Your task to perform on an android device: Show me productivity apps on the Play Store Image 0: 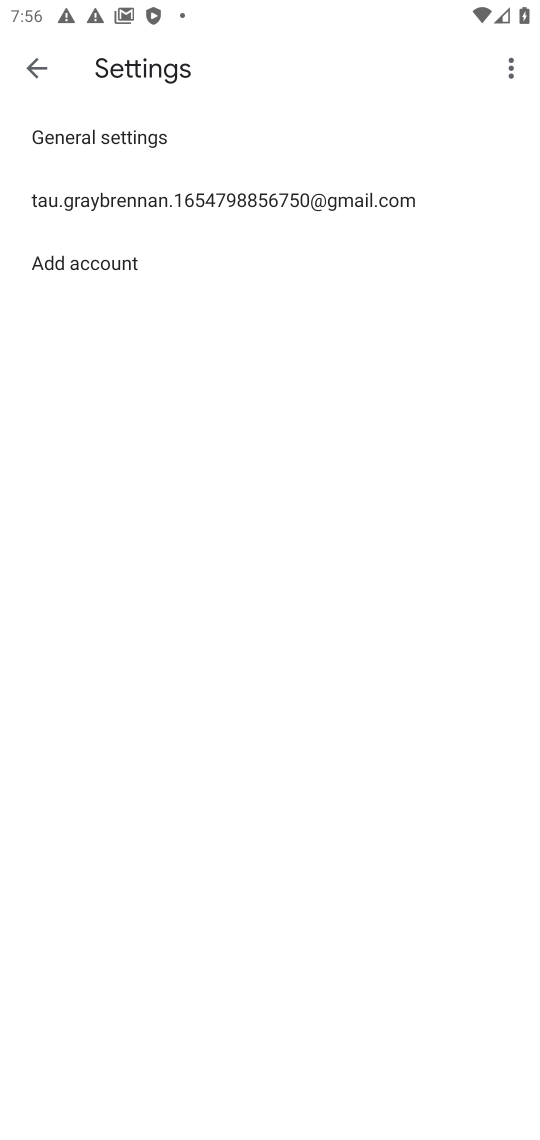
Step 0: press home button
Your task to perform on an android device: Show me productivity apps on the Play Store Image 1: 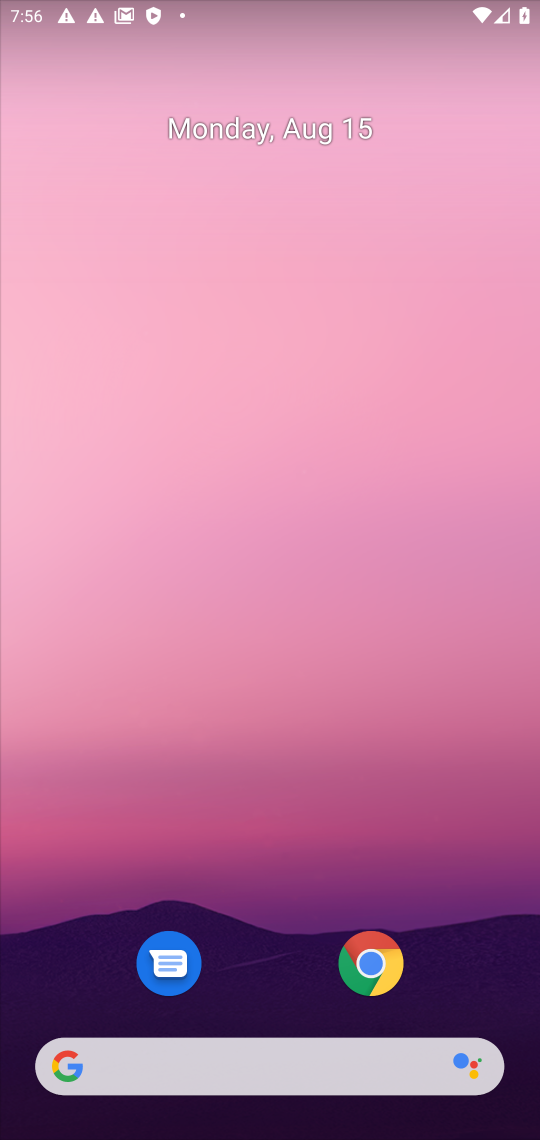
Step 1: click (204, 65)
Your task to perform on an android device: Show me productivity apps on the Play Store Image 2: 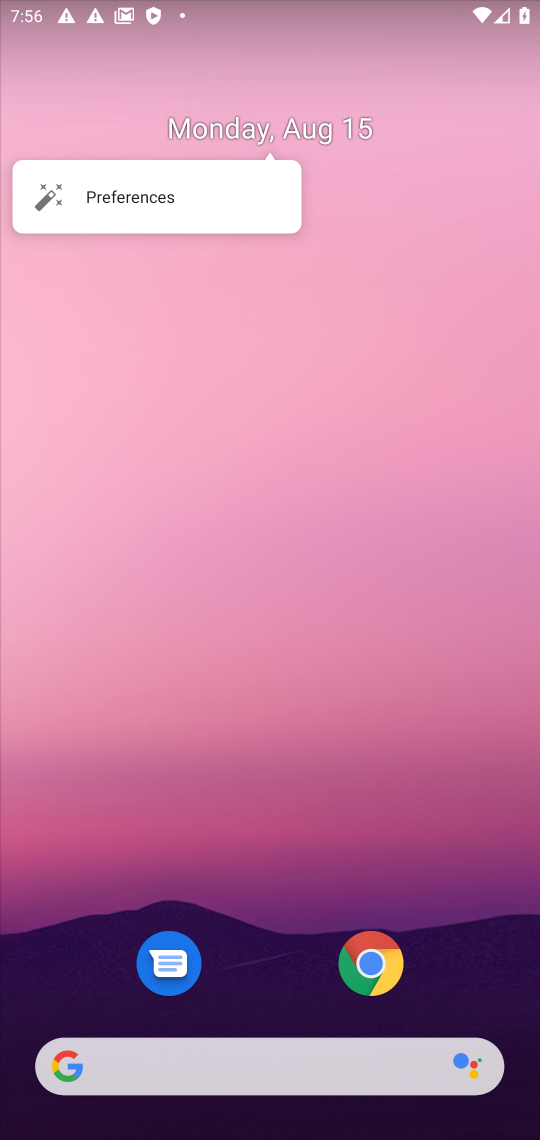
Step 2: drag from (250, 1012) to (311, 3)
Your task to perform on an android device: Show me productivity apps on the Play Store Image 3: 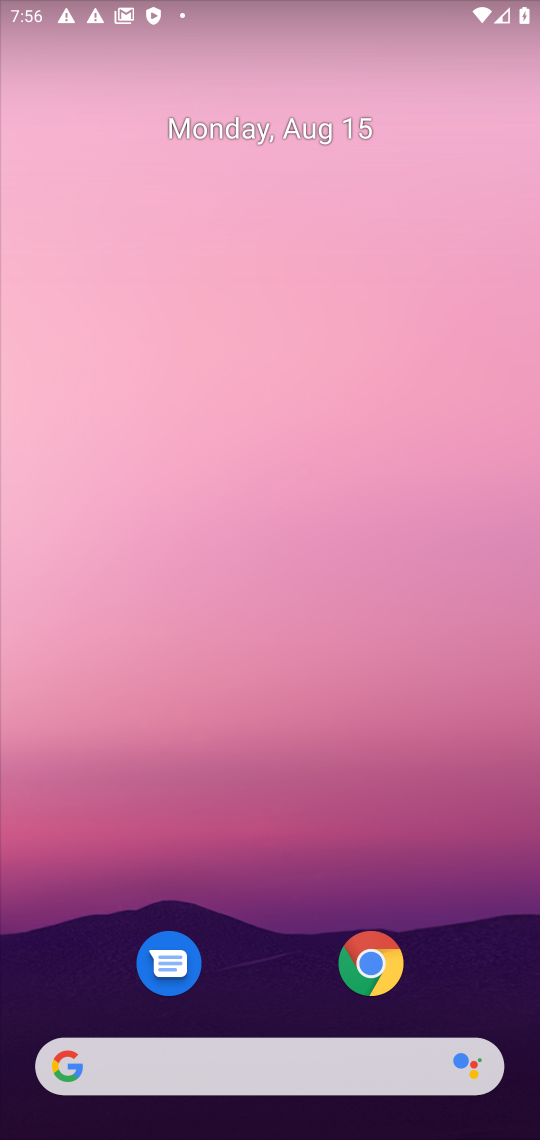
Step 3: drag from (278, 997) to (284, 186)
Your task to perform on an android device: Show me productivity apps on the Play Store Image 4: 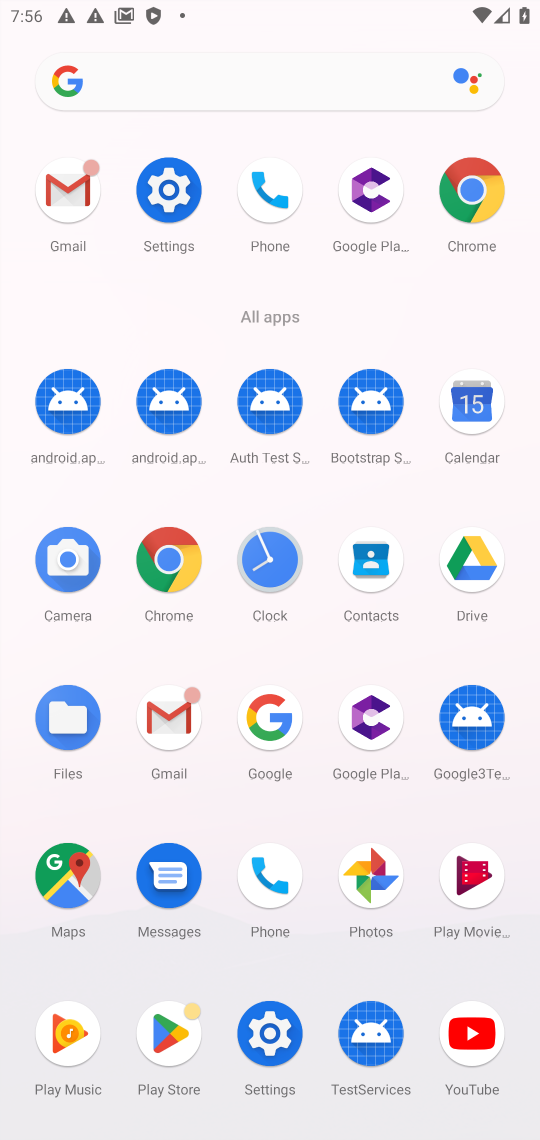
Step 4: click (191, 1014)
Your task to perform on an android device: Show me productivity apps on the Play Store Image 5: 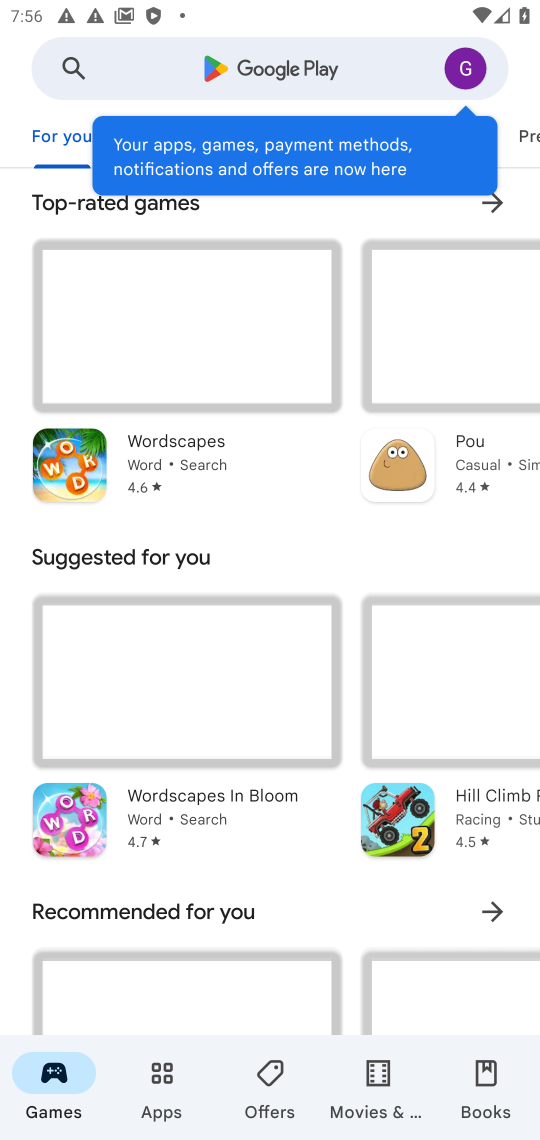
Step 5: click (172, 1071)
Your task to perform on an android device: Show me productivity apps on the Play Store Image 6: 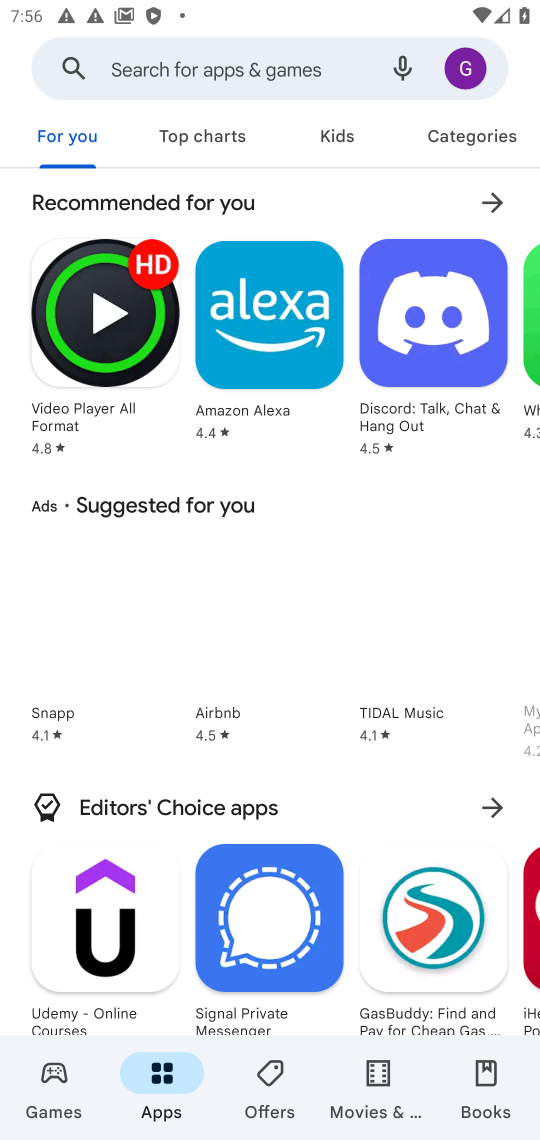
Step 6: click (476, 140)
Your task to perform on an android device: Show me productivity apps on the Play Store Image 7: 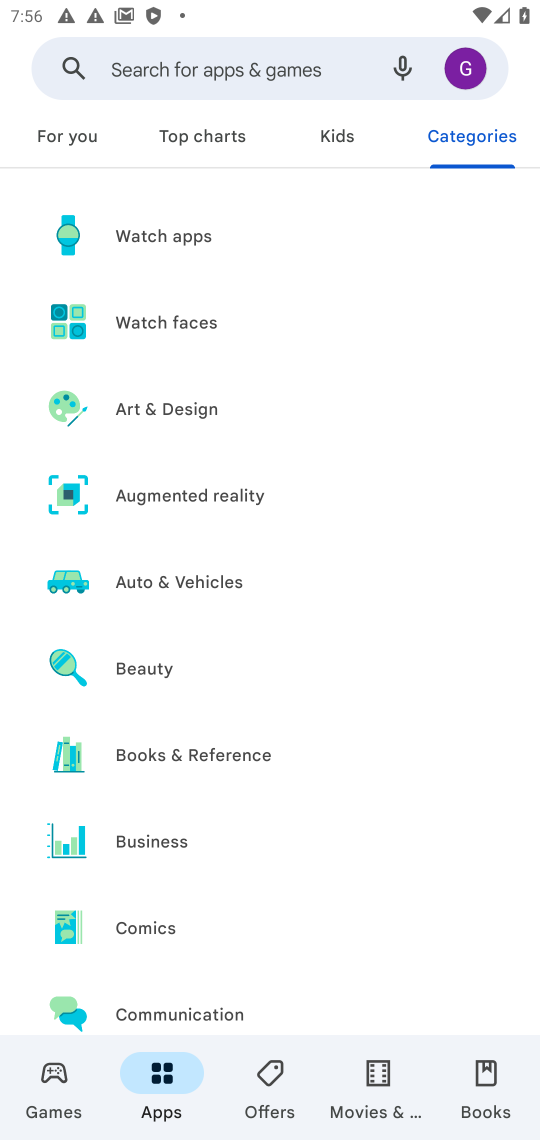
Step 7: drag from (260, 951) to (266, 219)
Your task to perform on an android device: Show me productivity apps on the Play Store Image 8: 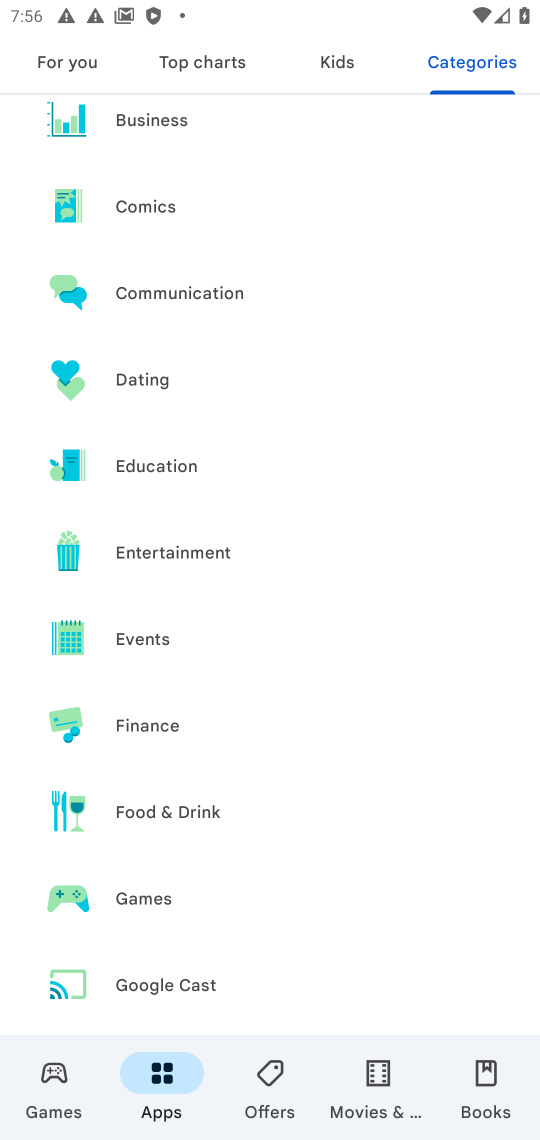
Step 8: drag from (194, 946) to (240, 188)
Your task to perform on an android device: Show me productivity apps on the Play Store Image 9: 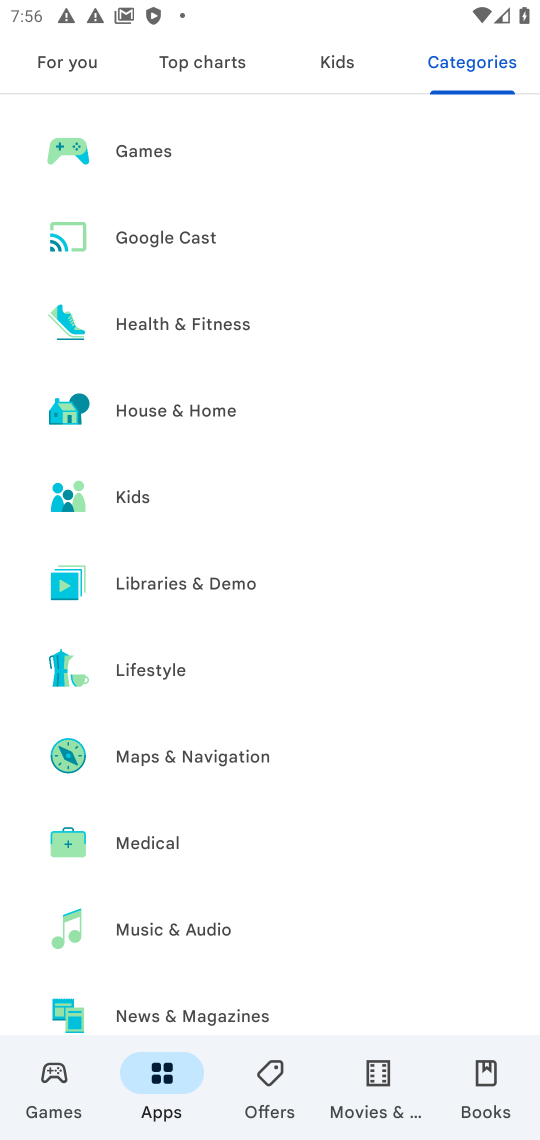
Step 9: drag from (315, 933) to (304, 260)
Your task to perform on an android device: Show me productivity apps on the Play Store Image 10: 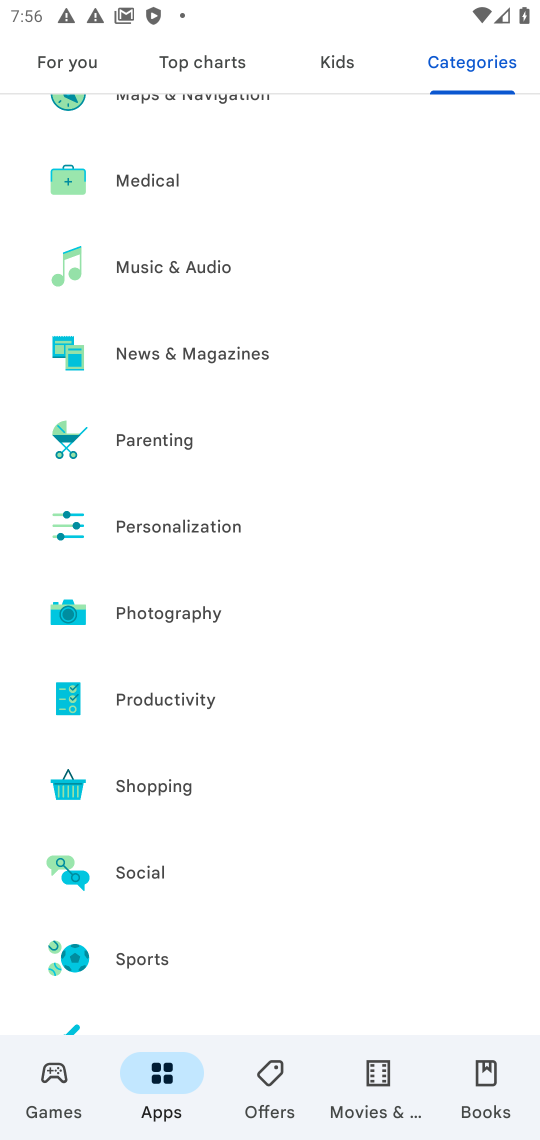
Step 10: drag from (387, 940) to (318, 332)
Your task to perform on an android device: Show me productivity apps on the Play Store Image 11: 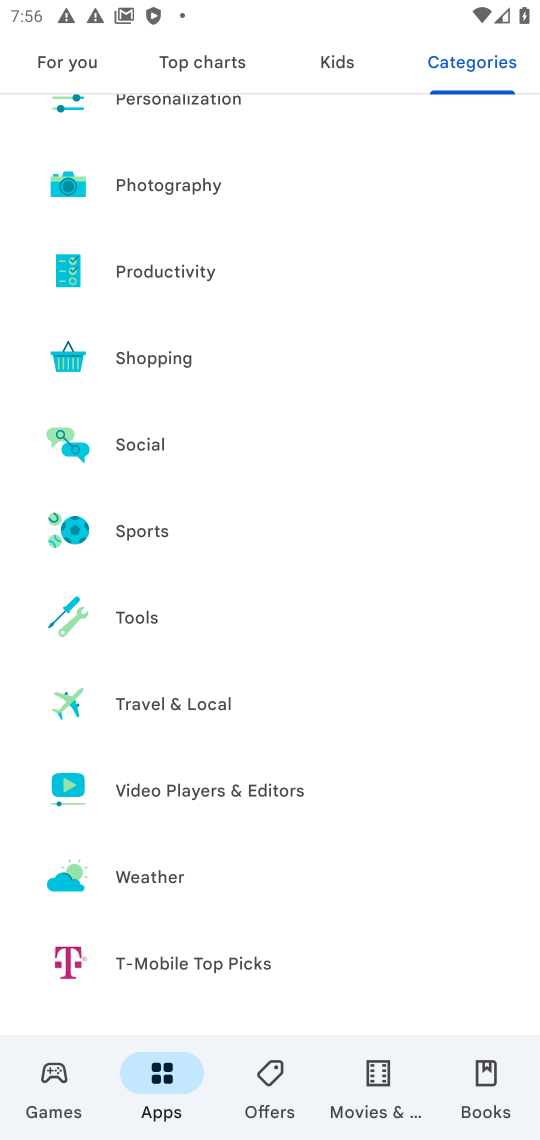
Step 11: click (242, 290)
Your task to perform on an android device: Show me productivity apps on the Play Store Image 12: 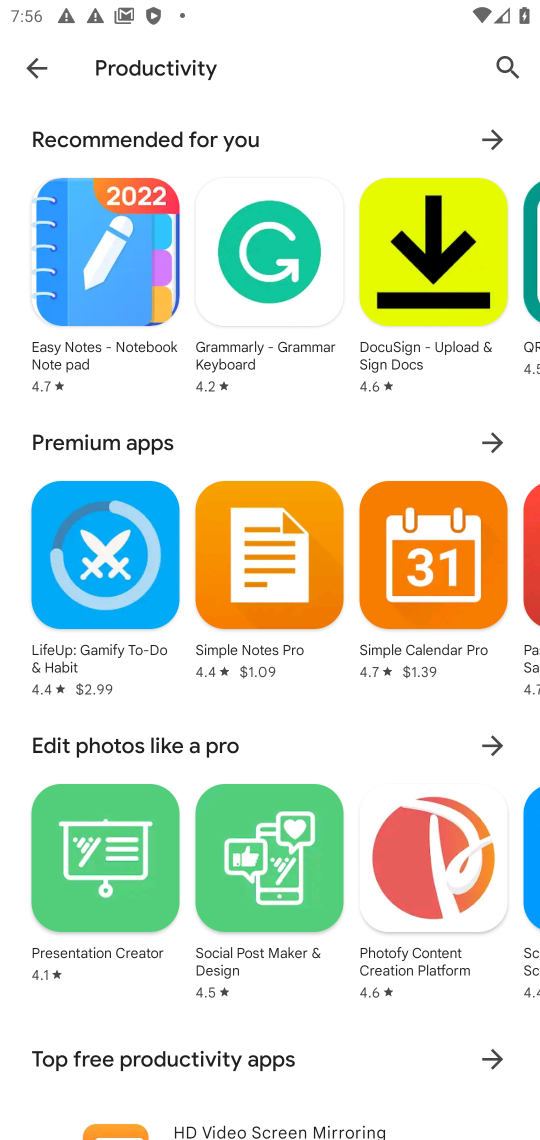
Step 12: task complete